Your task to perform on an android device: toggle show notifications on the lock screen Image 0: 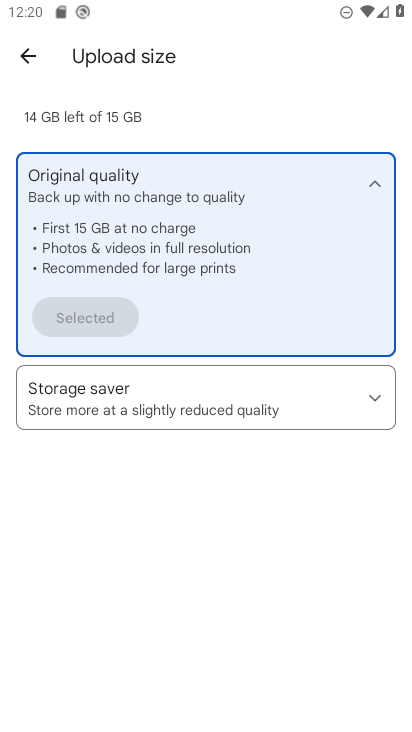
Step 0: press home button
Your task to perform on an android device: toggle show notifications on the lock screen Image 1: 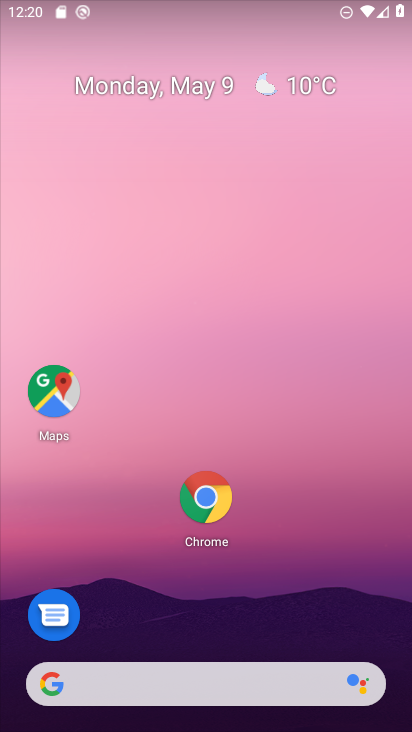
Step 1: drag from (319, 542) to (214, 5)
Your task to perform on an android device: toggle show notifications on the lock screen Image 2: 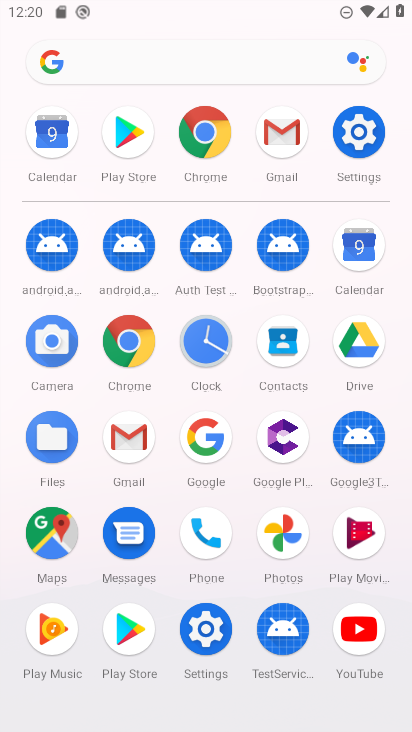
Step 2: click (348, 135)
Your task to perform on an android device: toggle show notifications on the lock screen Image 3: 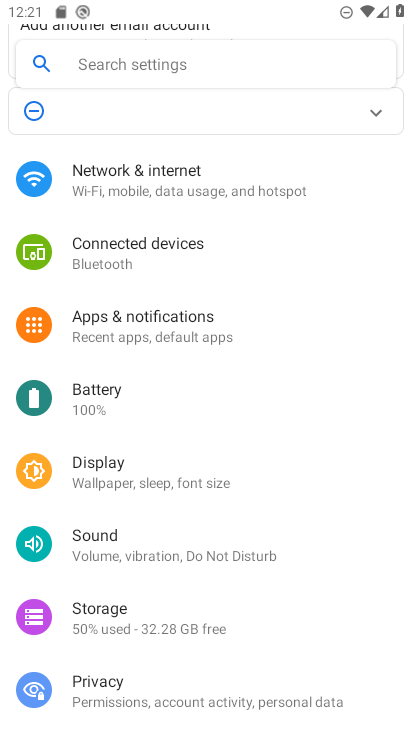
Step 3: click (146, 328)
Your task to perform on an android device: toggle show notifications on the lock screen Image 4: 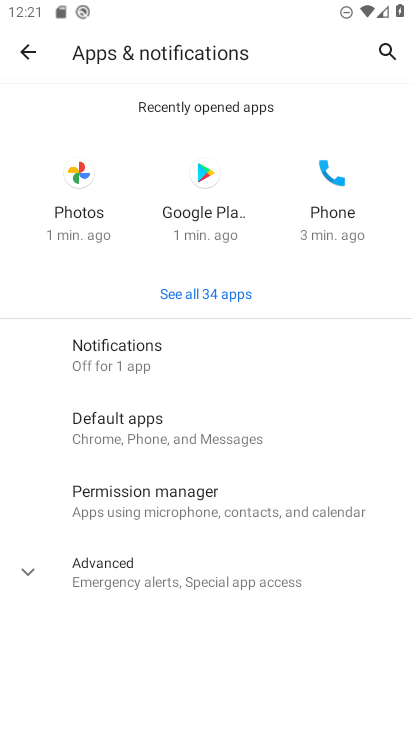
Step 4: click (160, 335)
Your task to perform on an android device: toggle show notifications on the lock screen Image 5: 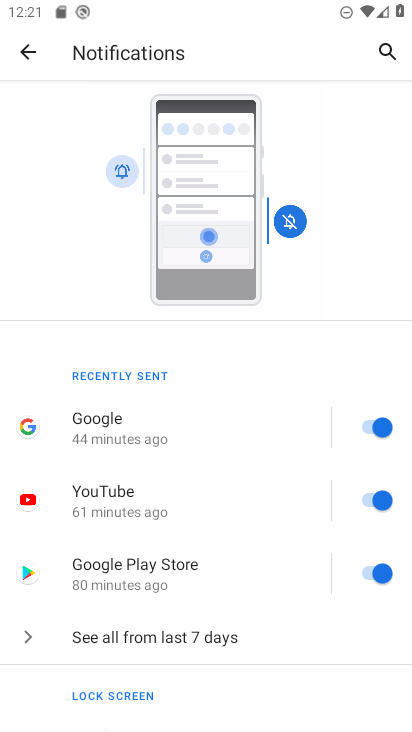
Step 5: drag from (246, 701) to (286, 377)
Your task to perform on an android device: toggle show notifications on the lock screen Image 6: 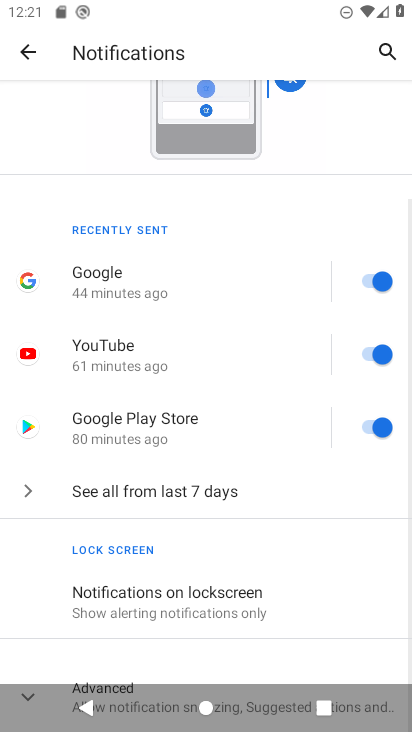
Step 6: click (165, 601)
Your task to perform on an android device: toggle show notifications on the lock screen Image 7: 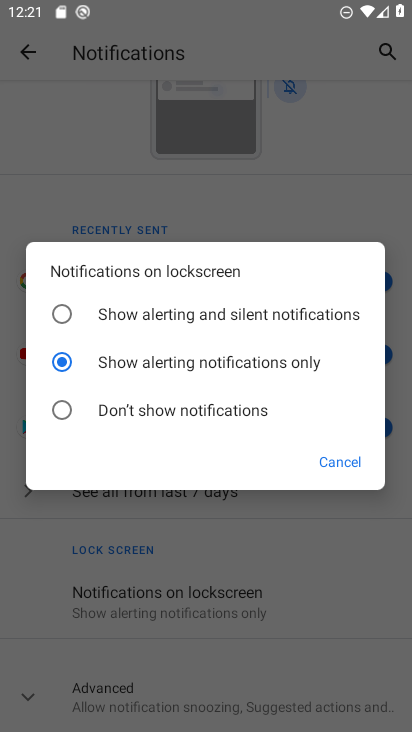
Step 7: click (216, 410)
Your task to perform on an android device: toggle show notifications on the lock screen Image 8: 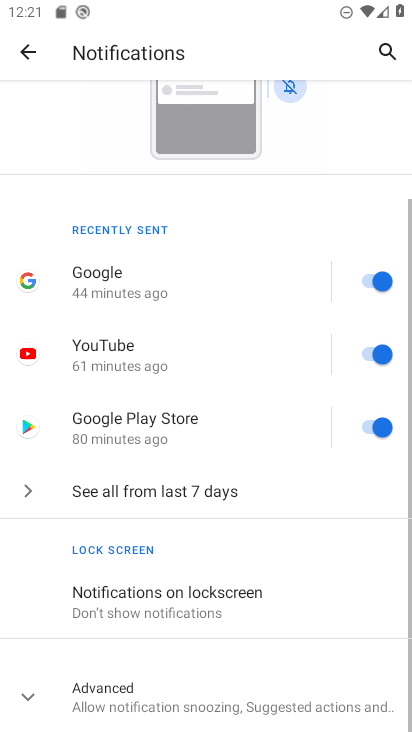
Step 8: task complete